Your task to perform on an android device: Open Google Chrome and click the shortcut for Amazon.com Image 0: 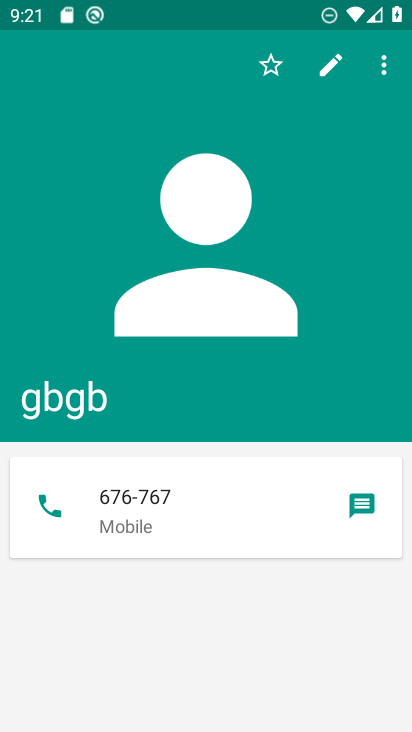
Step 0: press home button
Your task to perform on an android device: Open Google Chrome and click the shortcut for Amazon.com Image 1: 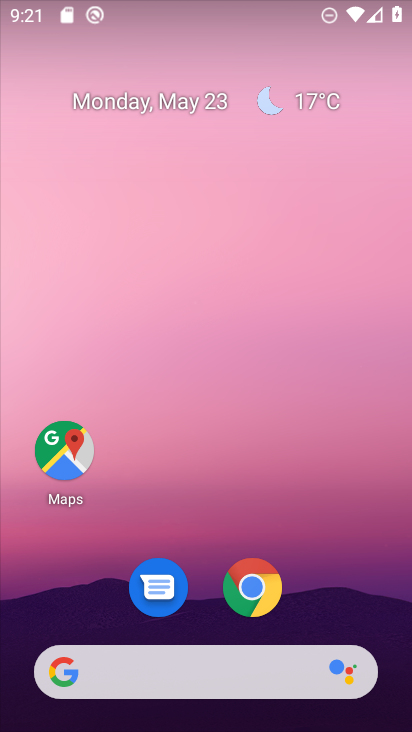
Step 1: click (237, 583)
Your task to perform on an android device: Open Google Chrome and click the shortcut for Amazon.com Image 2: 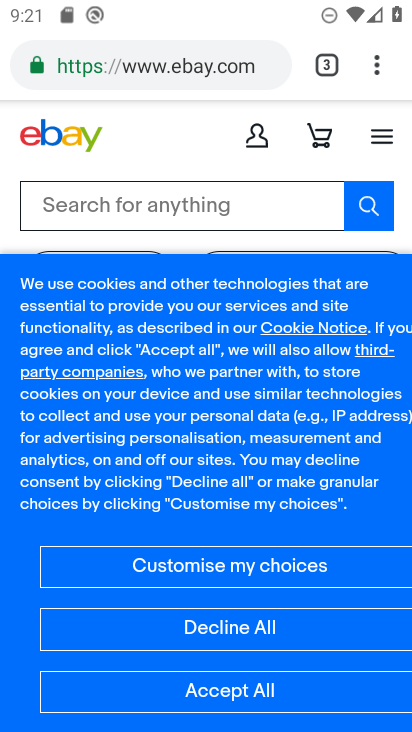
Step 2: click (331, 67)
Your task to perform on an android device: Open Google Chrome and click the shortcut for Amazon.com Image 3: 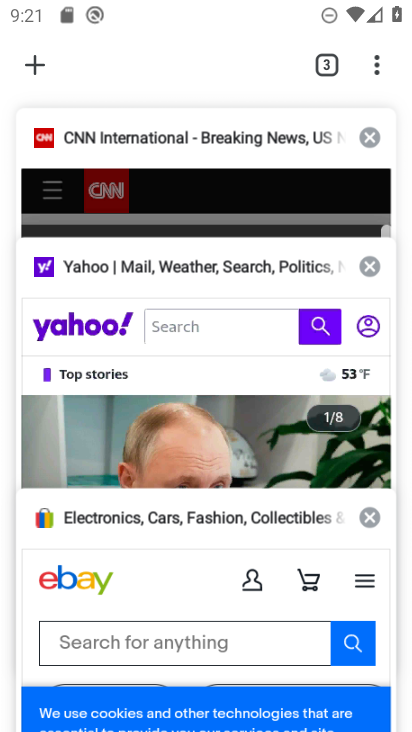
Step 3: click (27, 59)
Your task to perform on an android device: Open Google Chrome and click the shortcut for Amazon.com Image 4: 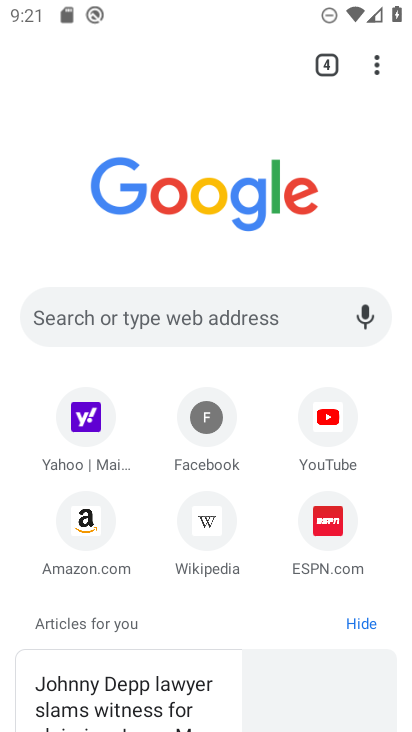
Step 4: click (84, 527)
Your task to perform on an android device: Open Google Chrome and click the shortcut for Amazon.com Image 5: 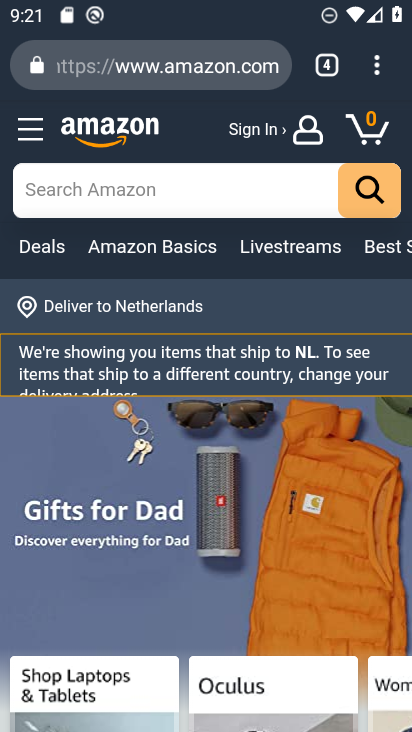
Step 5: task complete